Your task to perform on an android device: move an email to a new category in the gmail app Image 0: 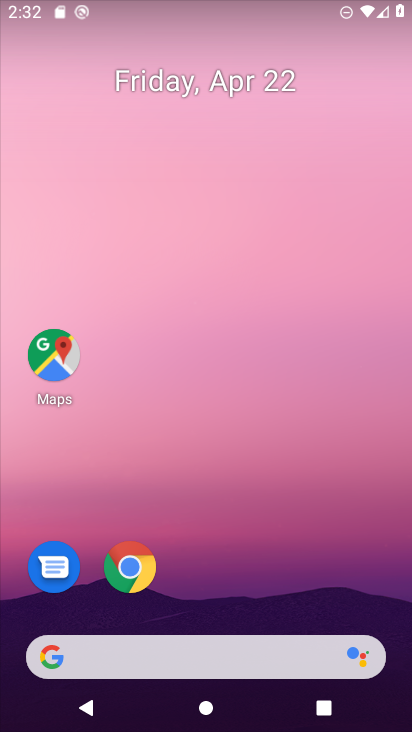
Step 0: drag from (231, 472) to (247, 36)
Your task to perform on an android device: move an email to a new category in the gmail app Image 1: 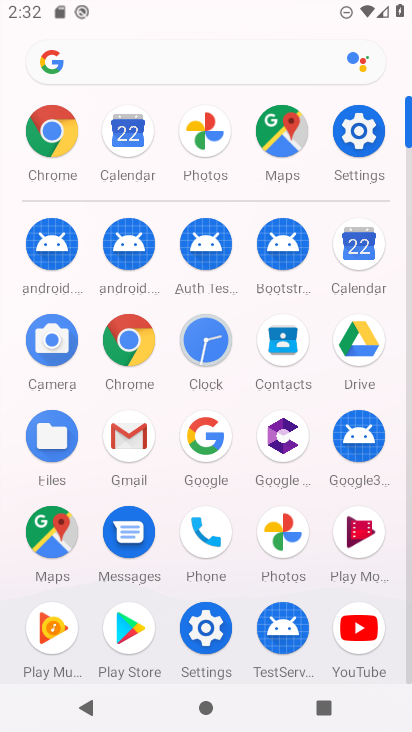
Step 1: click (149, 429)
Your task to perform on an android device: move an email to a new category in the gmail app Image 2: 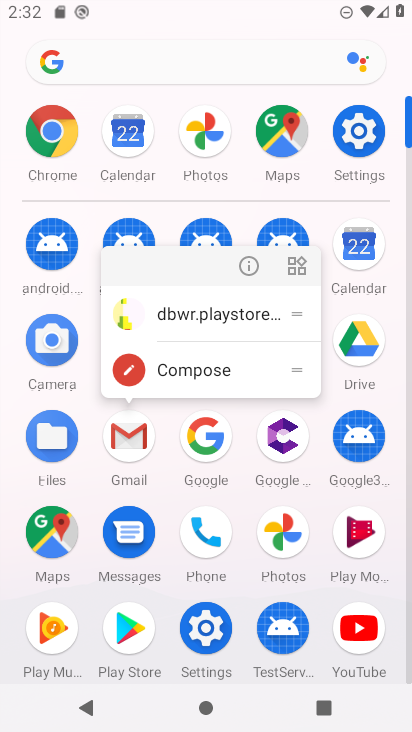
Step 2: click (142, 437)
Your task to perform on an android device: move an email to a new category in the gmail app Image 3: 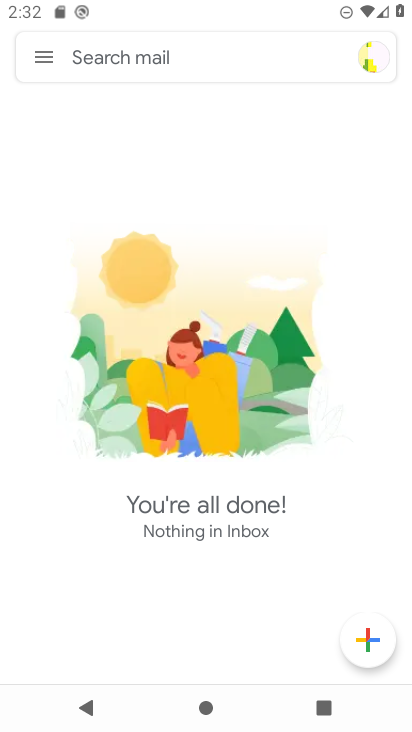
Step 3: click (48, 62)
Your task to perform on an android device: move an email to a new category in the gmail app Image 4: 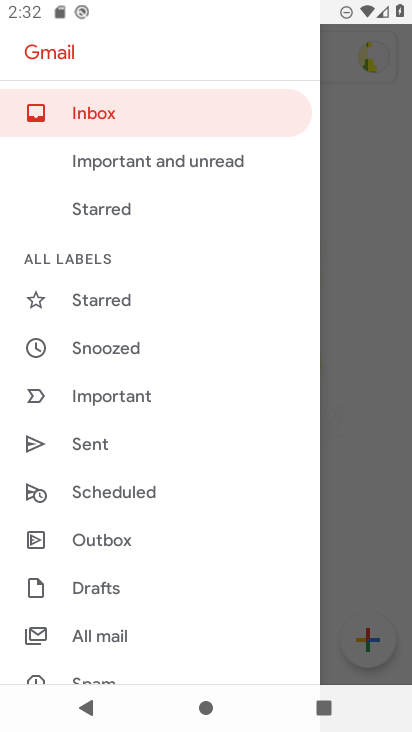
Step 4: click (122, 633)
Your task to perform on an android device: move an email to a new category in the gmail app Image 5: 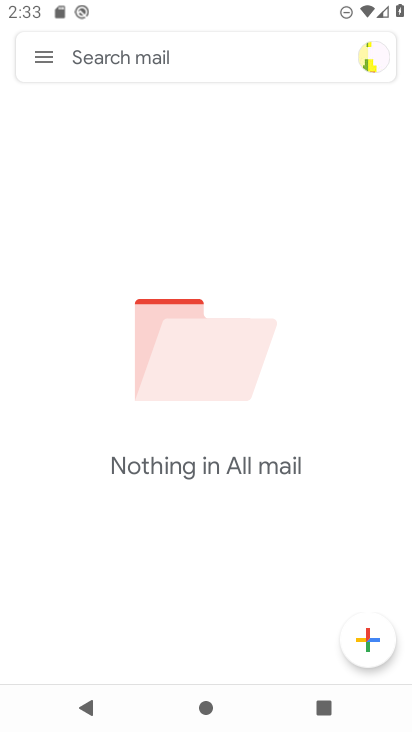
Step 5: task complete